Your task to perform on an android device: uninstall "Facebook Lite" Image 0: 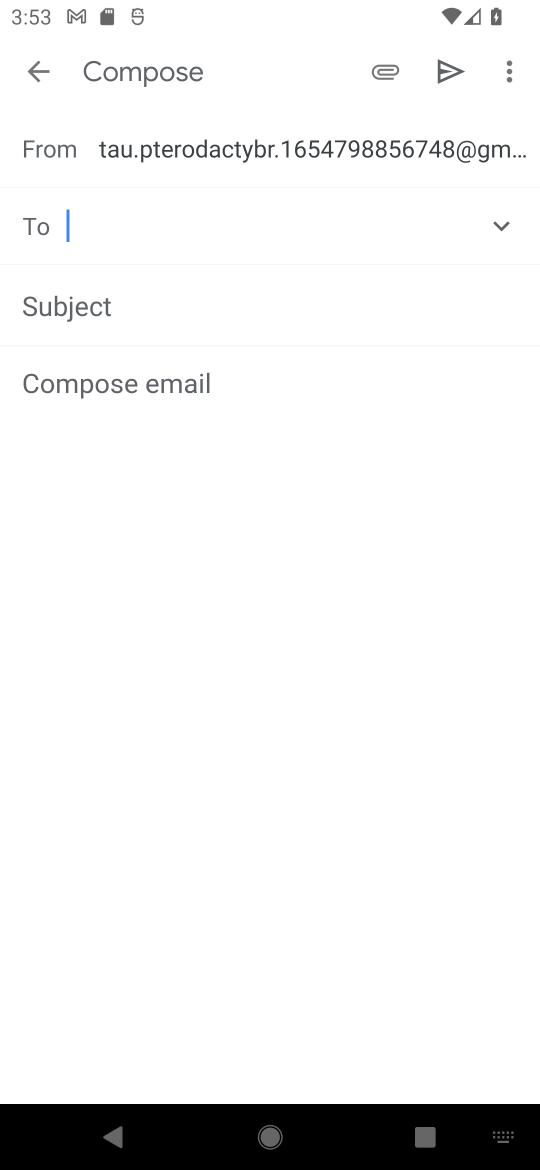
Step 0: press home button
Your task to perform on an android device: uninstall "Facebook Lite" Image 1: 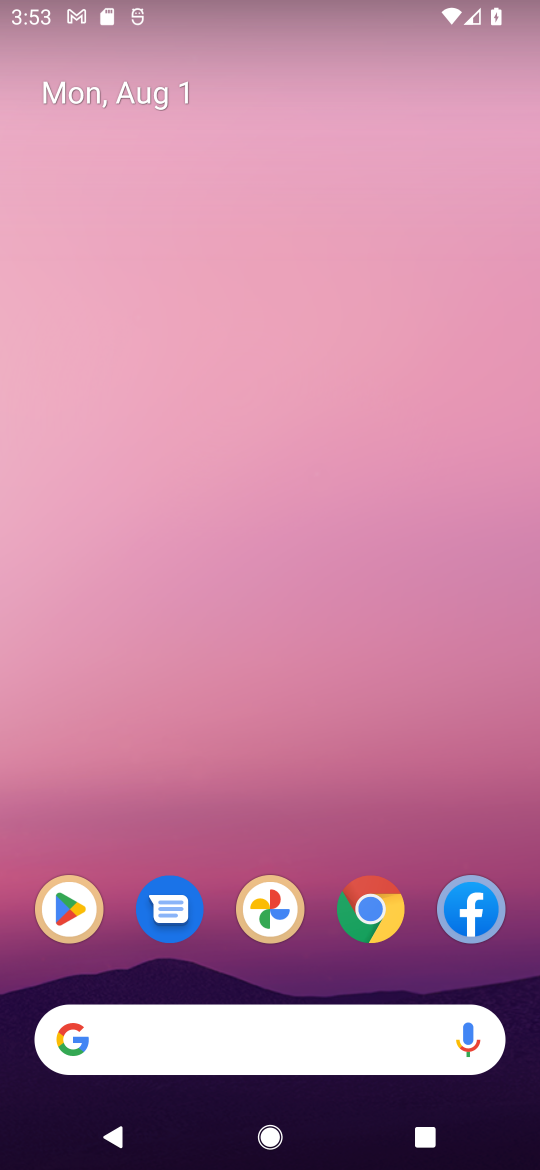
Step 1: click (53, 915)
Your task to perform on an android device: uninstall "Facebook Lite" Image 2: 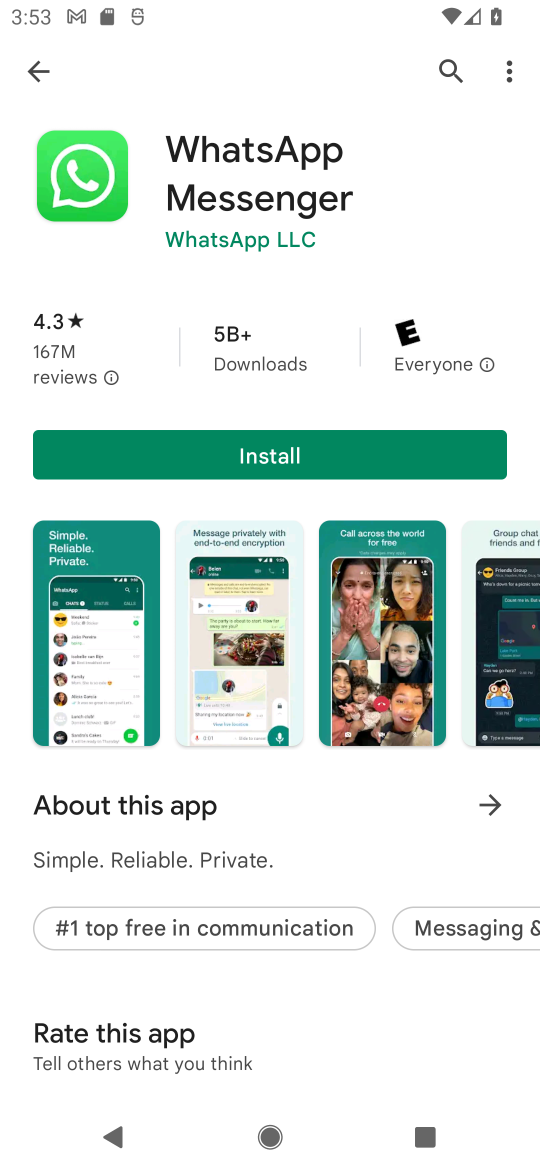
Step 2: click (44, 73)
Your task to perform on an android device: uninstall "Facebook Lite" Image 3: 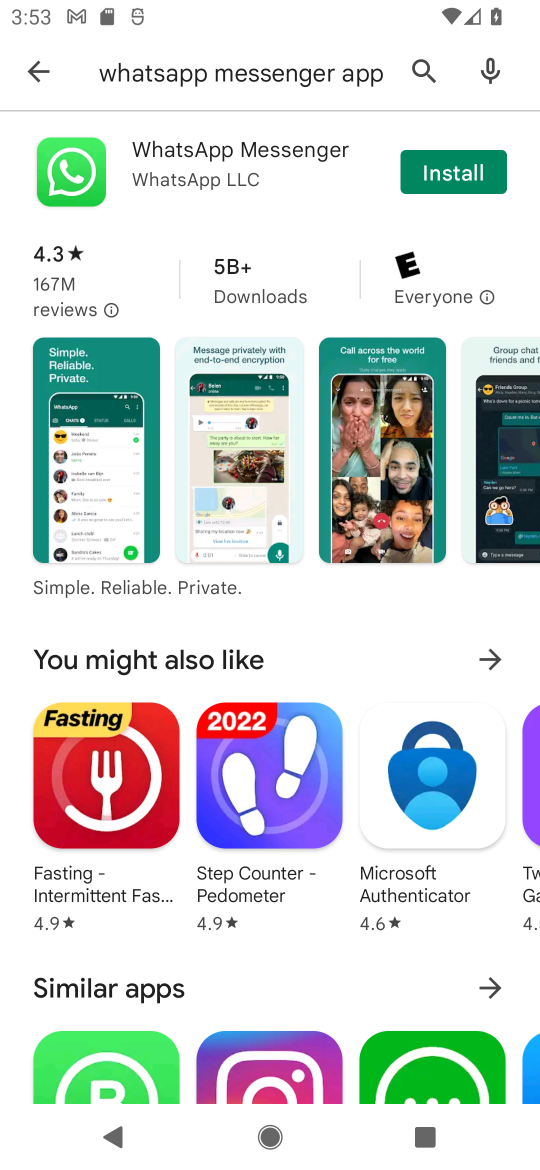
Step 3: click (252, 72)
Your task to perform on an android device: uninstall "Facebook Lite" Image 4: 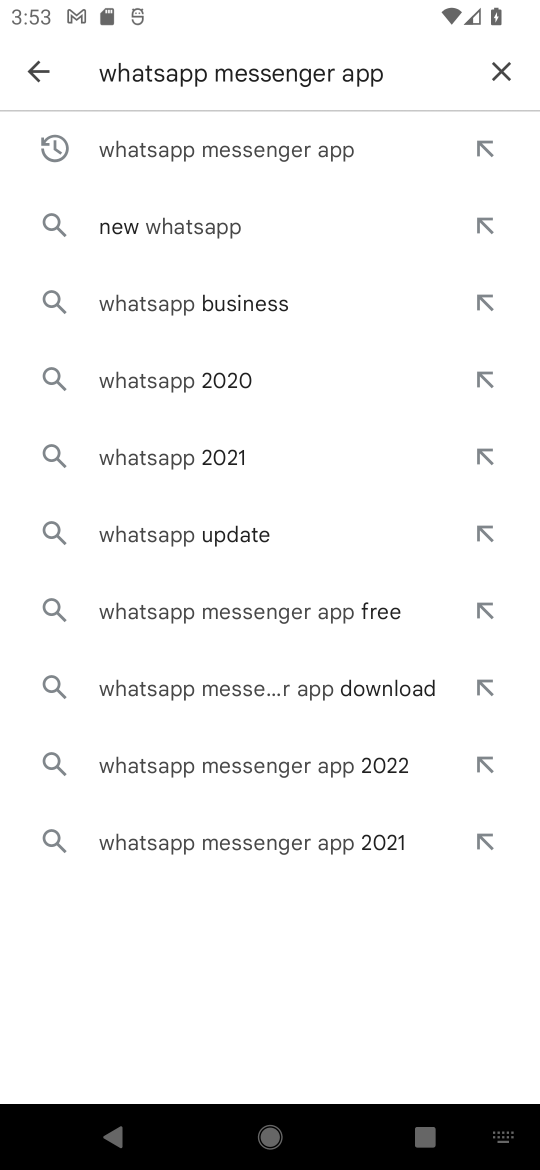
Step 4: click (505, 66)
Your task to perform on an android device: uninstall "Facebook Lite" Image 5: 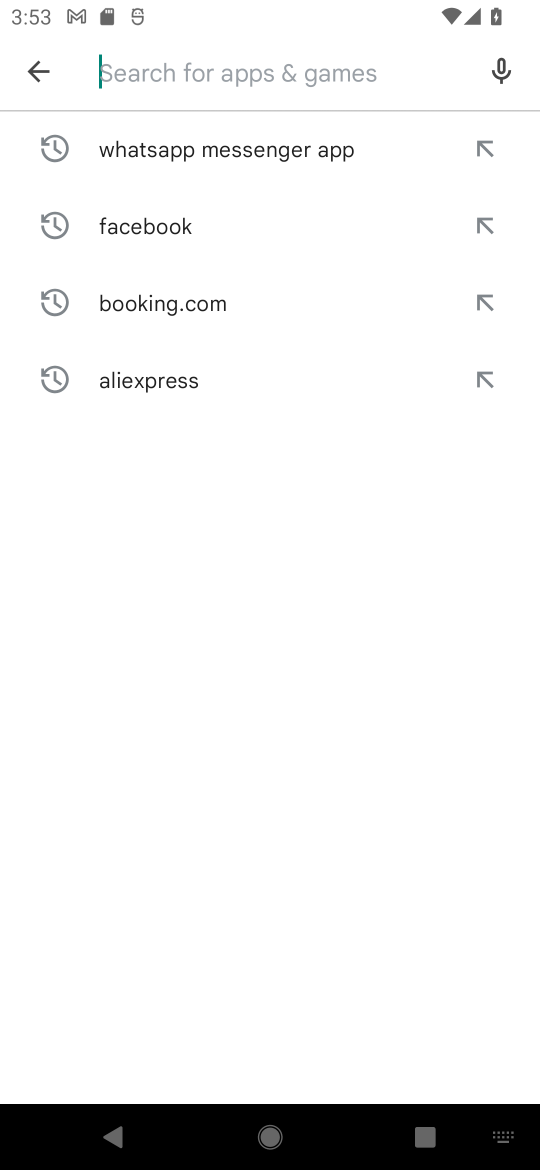
Step 5: type "facebook lite"
Your task to perform on an android device: uninstall "Facebook Lite" Image 6: 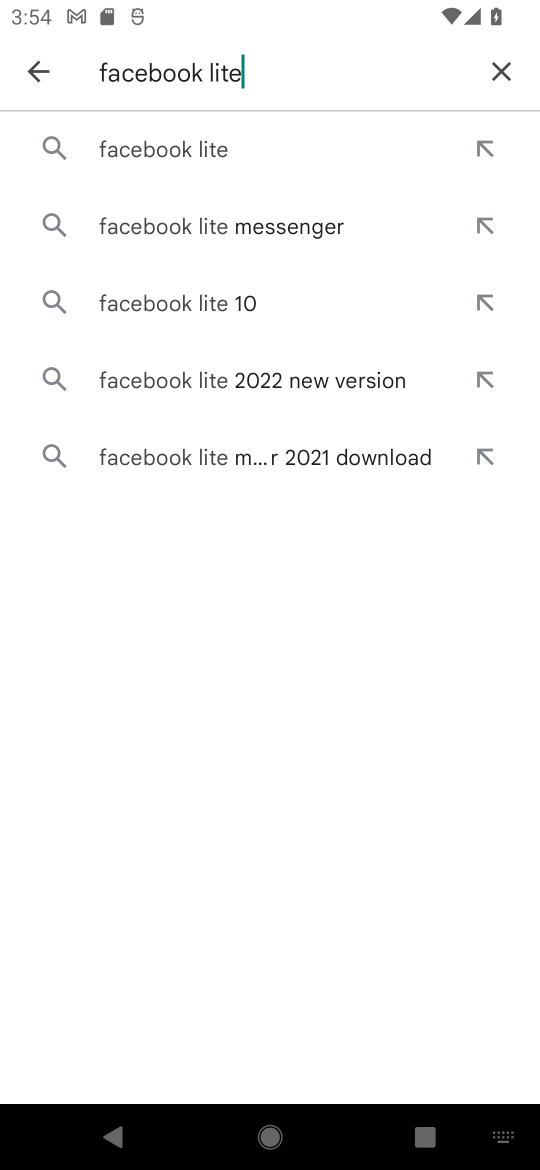
Step 6: click (183, 173)
Your task to perform on an android device: uninstall "Facebook Lite" Image 7: 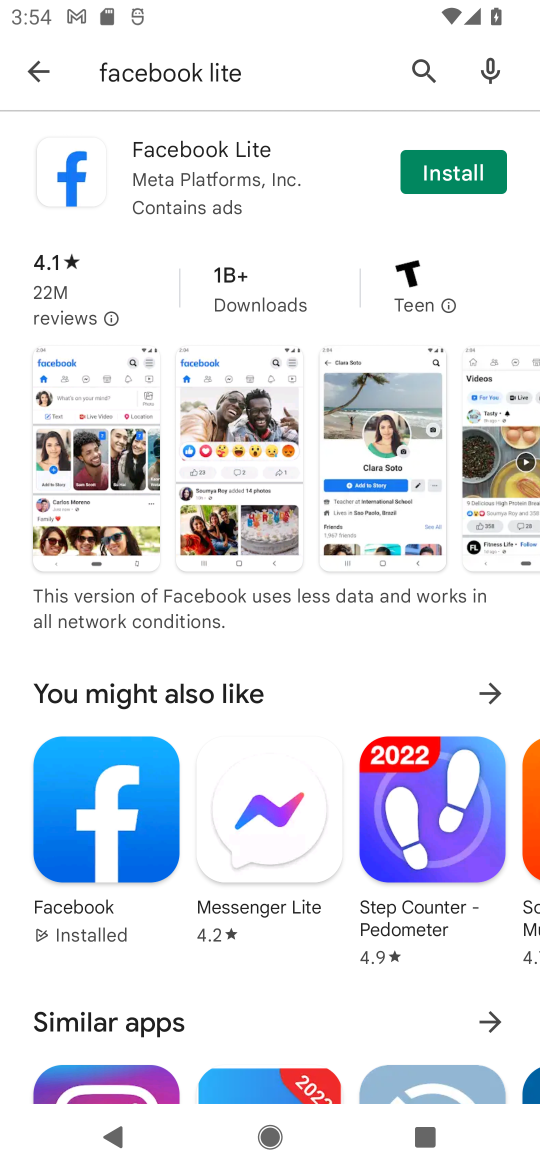
Step 7: click (215, 142)
Your task to perform on an android device: uninstall "Facebook Lite" Image 8: 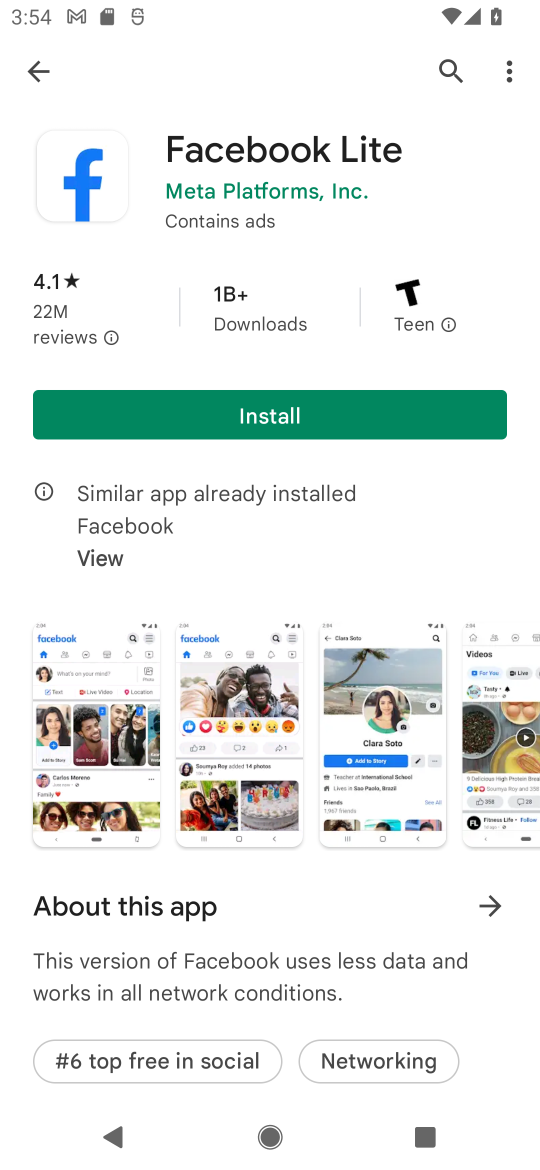
Step 8: task complete